Your task to perform on an android device: open app "YouTube Kids" Image 0: 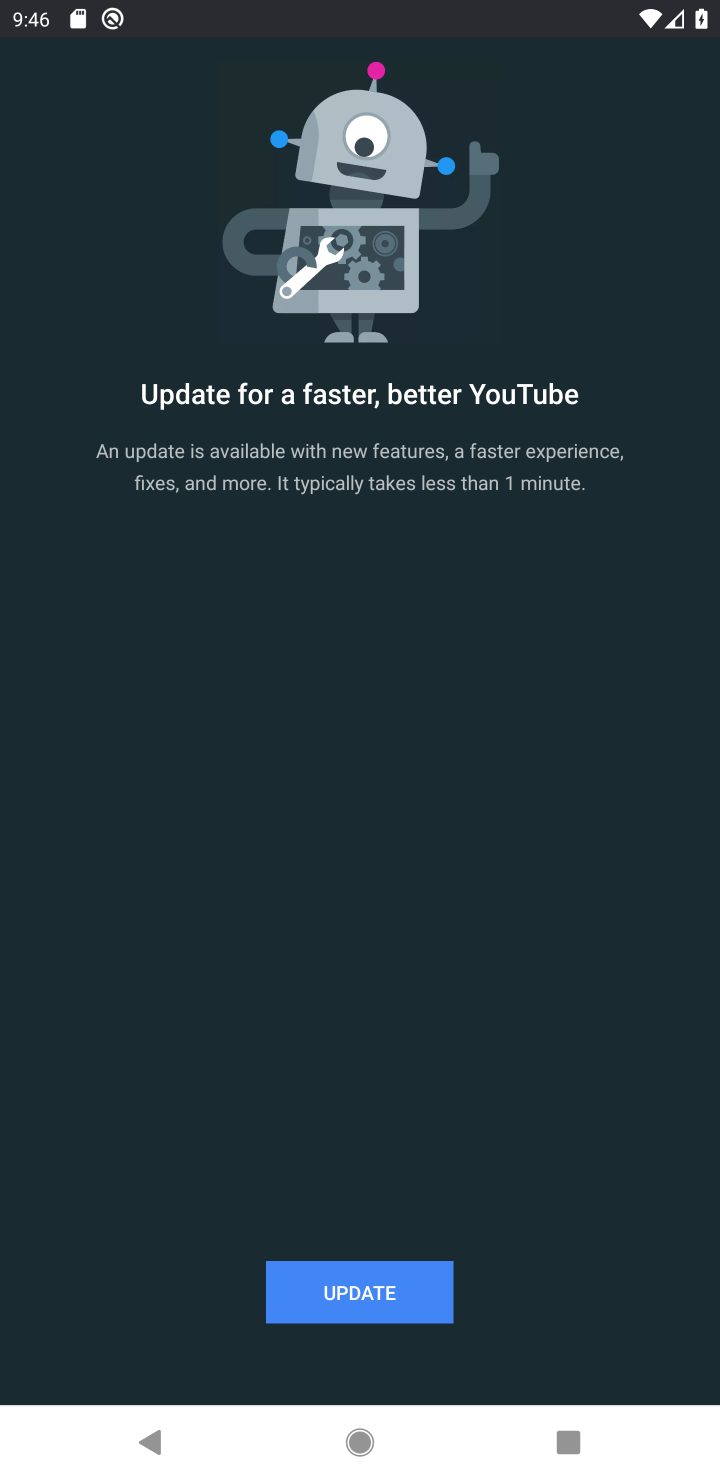
Step 0: press back button
Your task to perform on an android device: open app "YouTube Kids" Image 1: 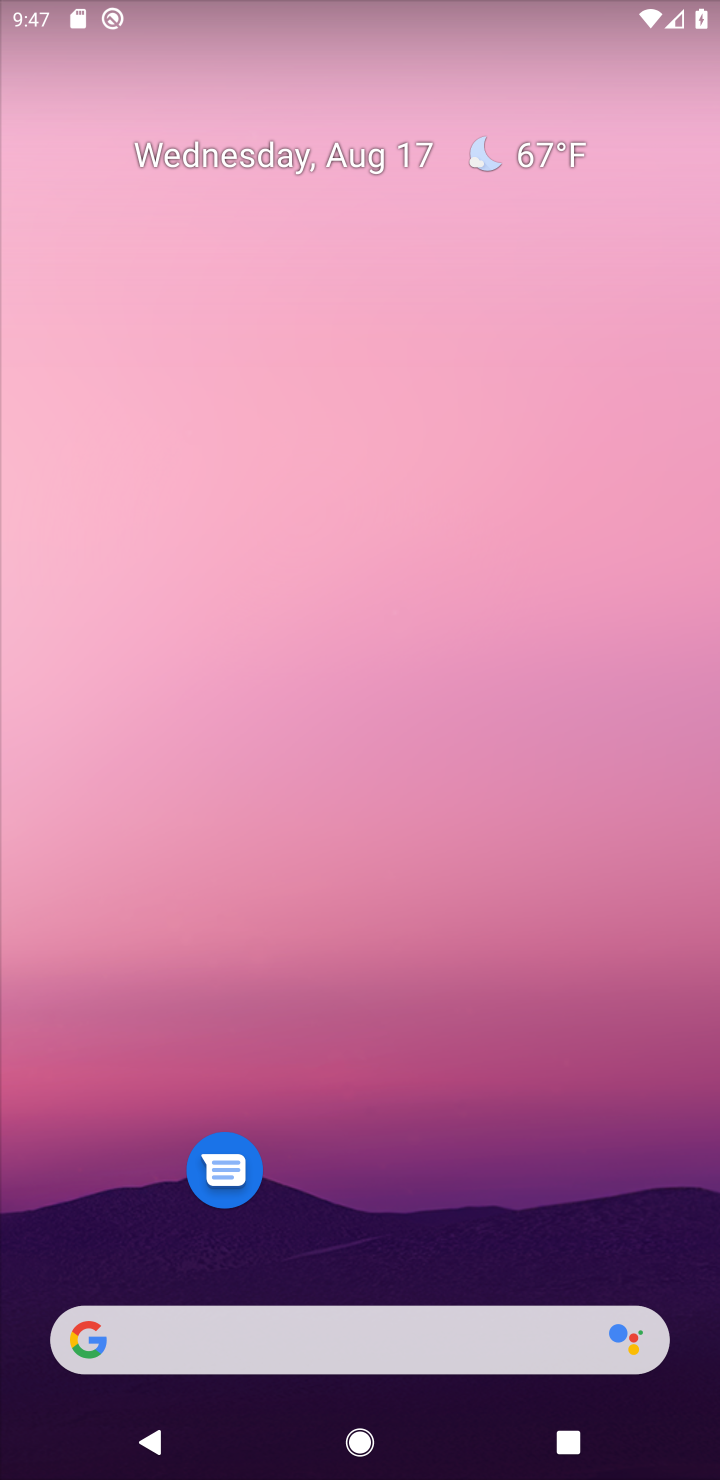
Step 1: drag from (395, 1282) to (425, 0)
Your task to perform on an android device: open app "YouTube Kids" Image 2: 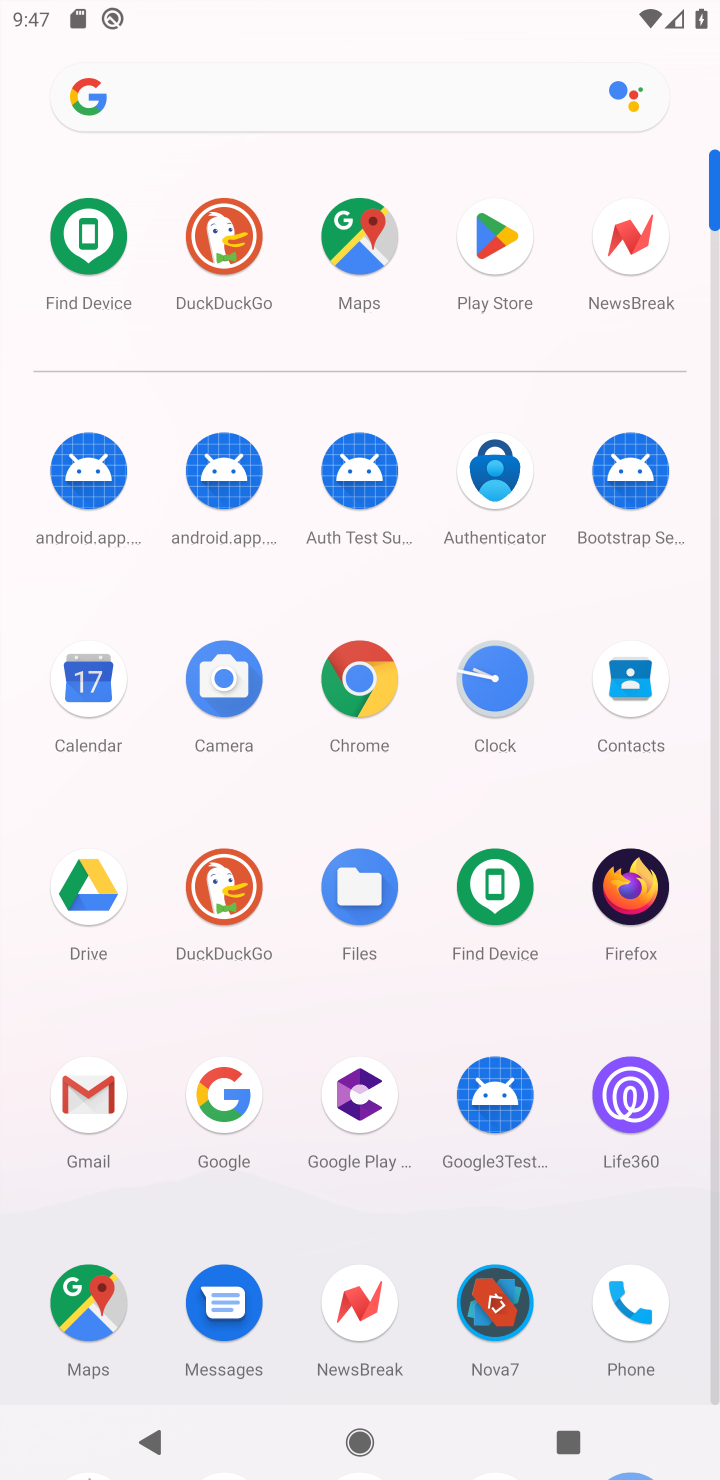
Step 2: click (478, 259)
Your task to perform on an android device: open app "YouTube Kids" Image 3: 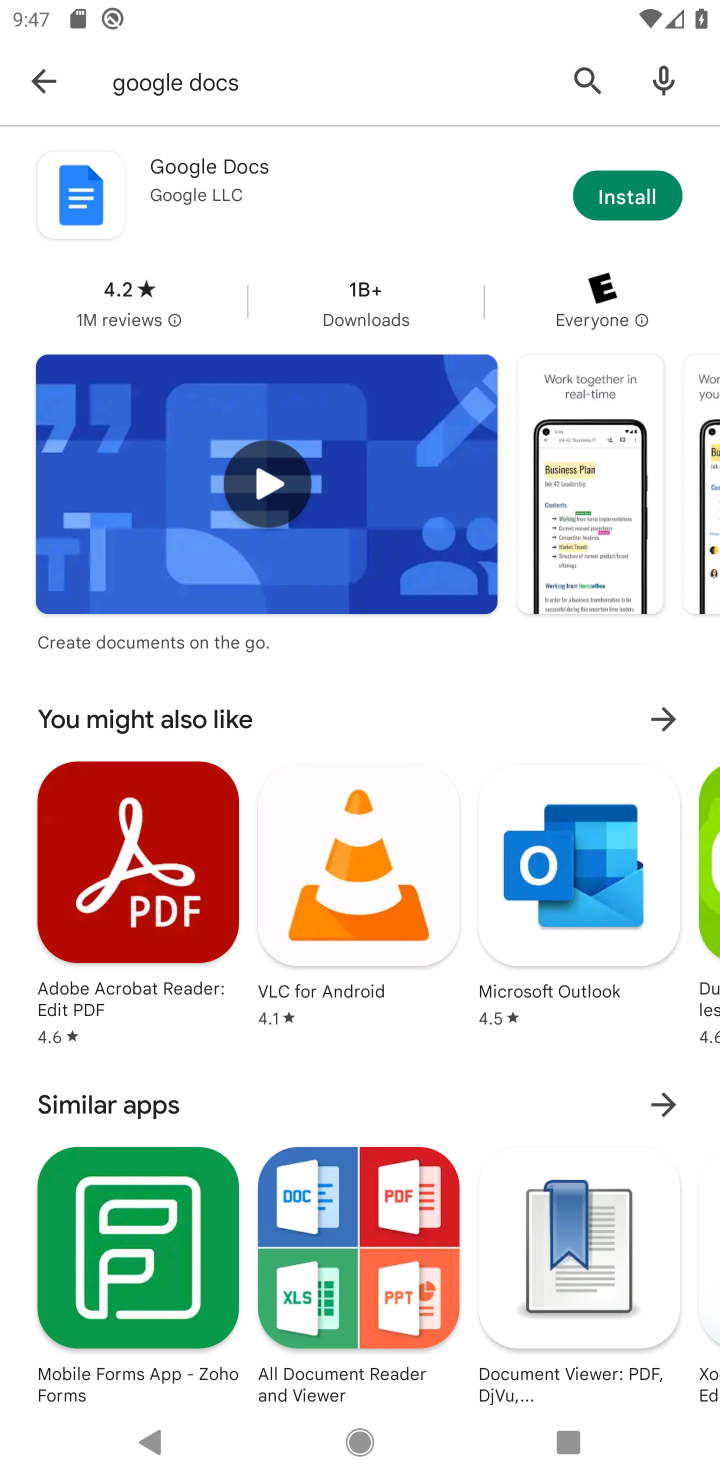
Step 3: click (33, 89)
Your task to perform on an android device: open app "YouTube Kids" Image 4: 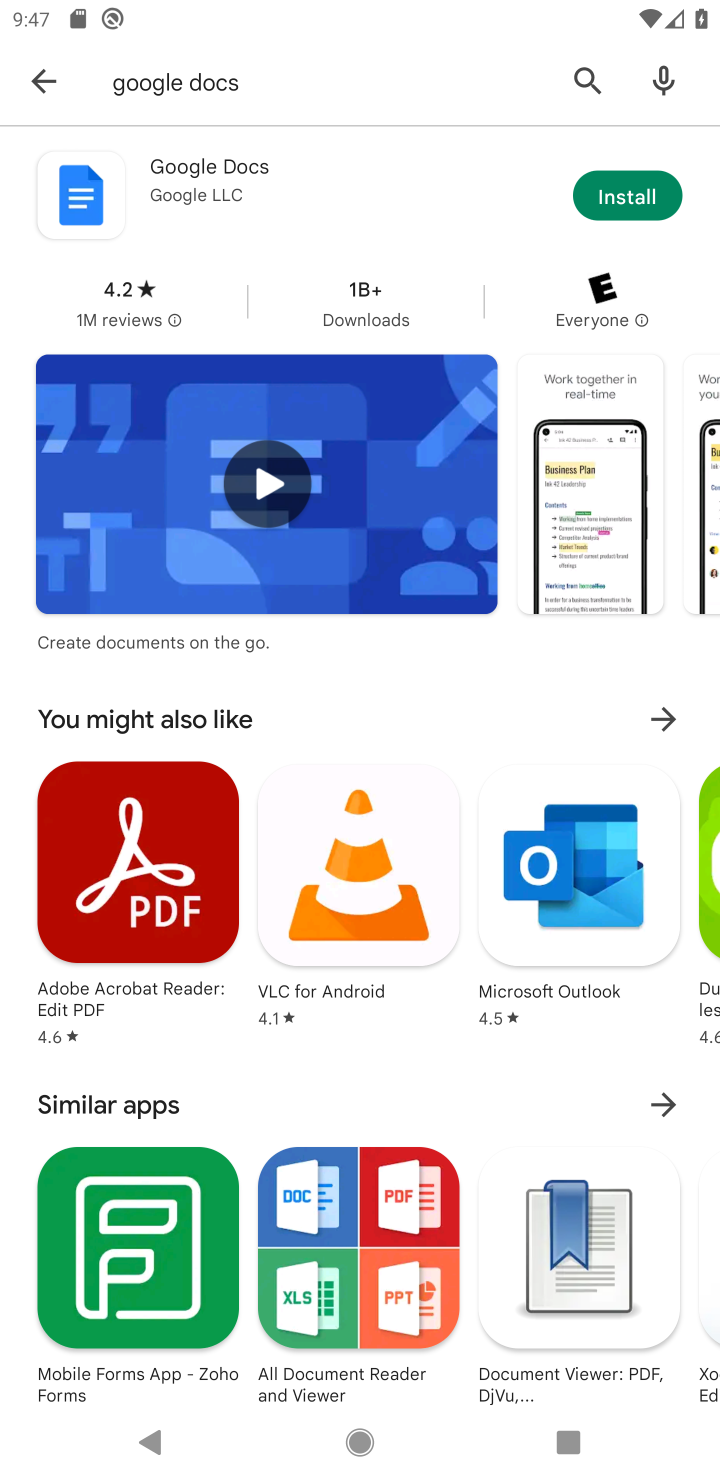
Step 4: click (57, 66)
Your task to perform on an android device: open app "YouTube Kids" Image 5: 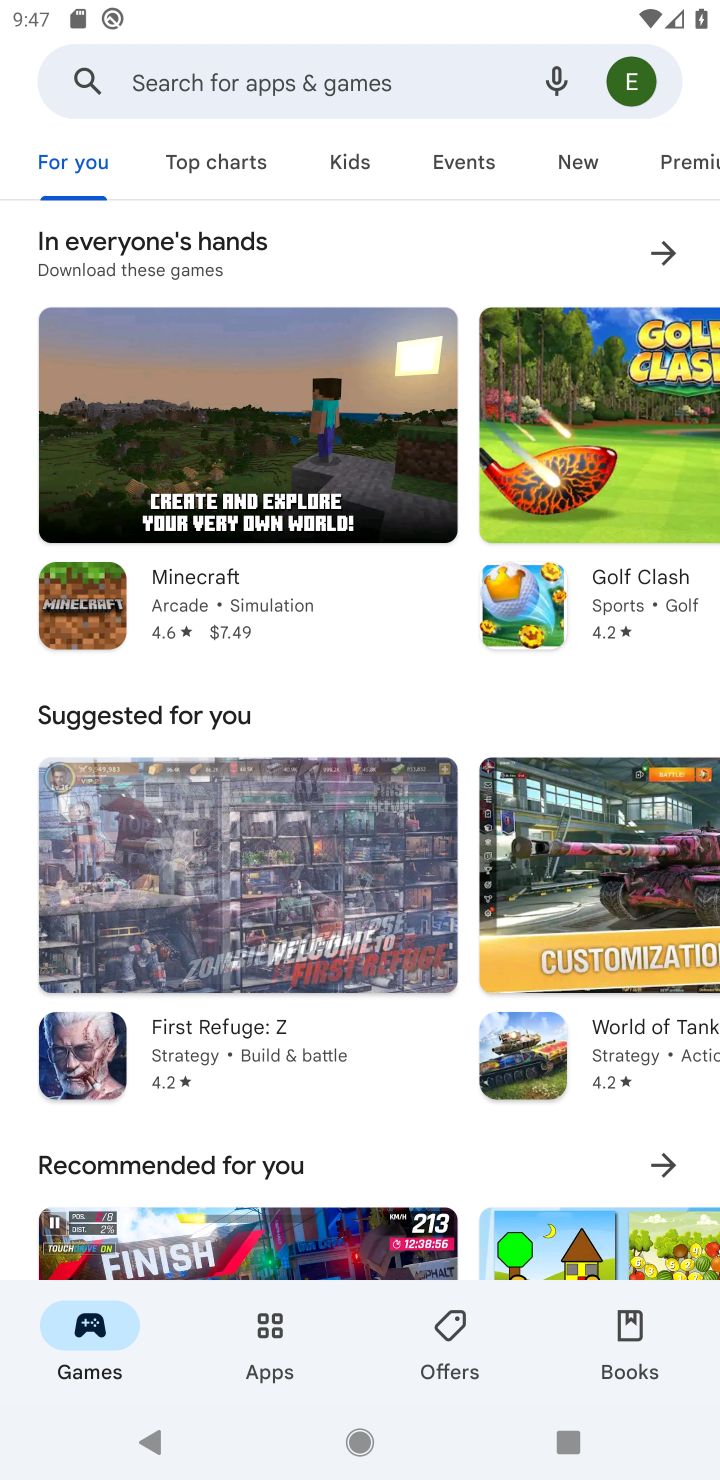
Step 5: click (168, 96)
Your task to perform on an android device: open app "YouTube Kids" Image 6: 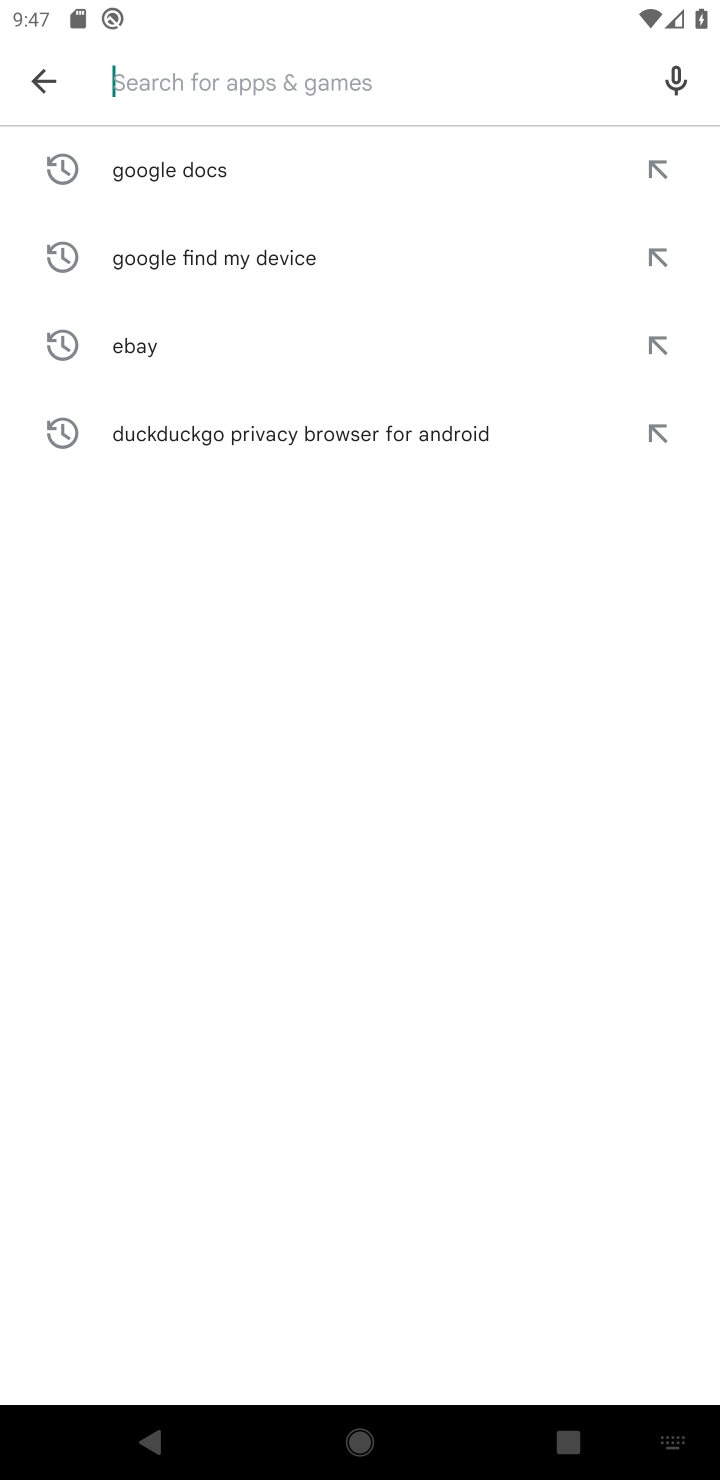
Step 6: type "YouTube Kids"
Your task to perform on an android device: open app "YouTube Kids" Image 7: 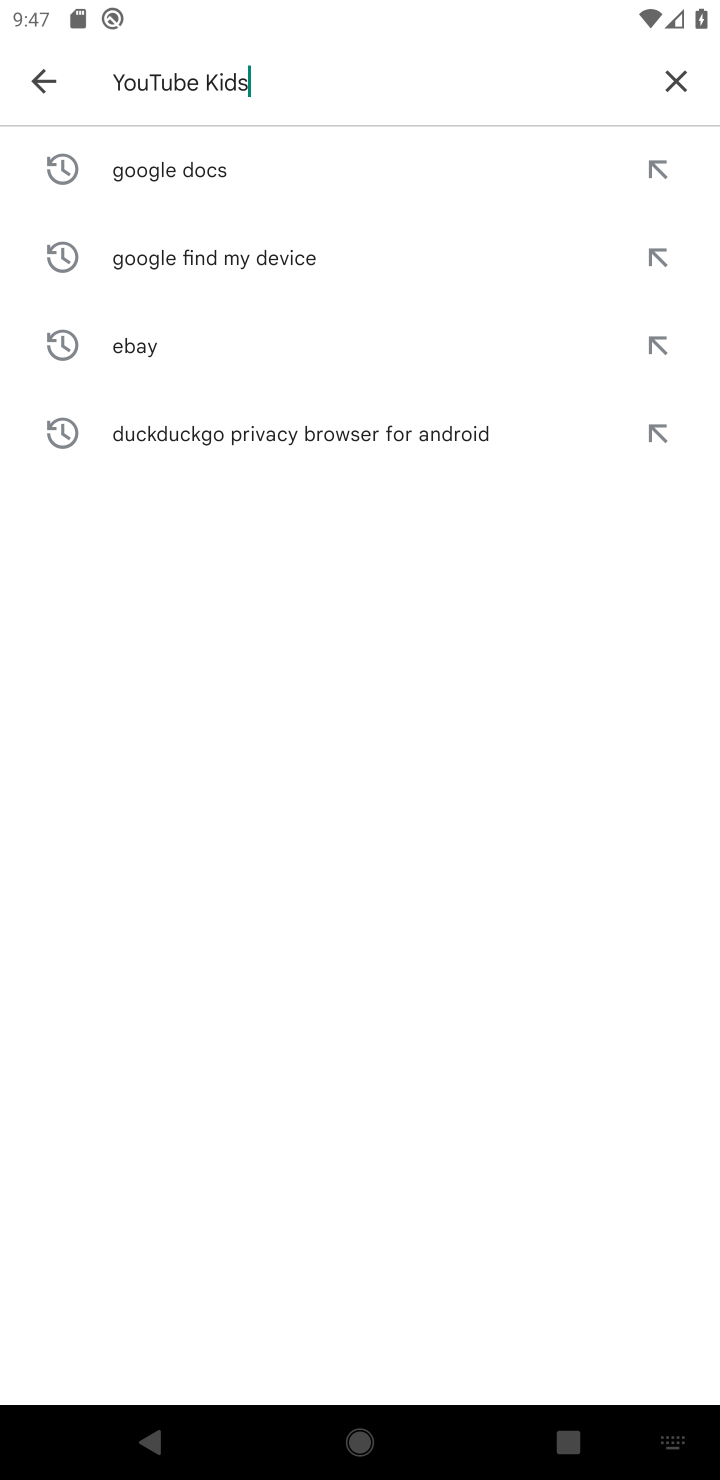
Step 7: type ""
Your task to perform on an android device: open app "YouTube Kids" Image 8: 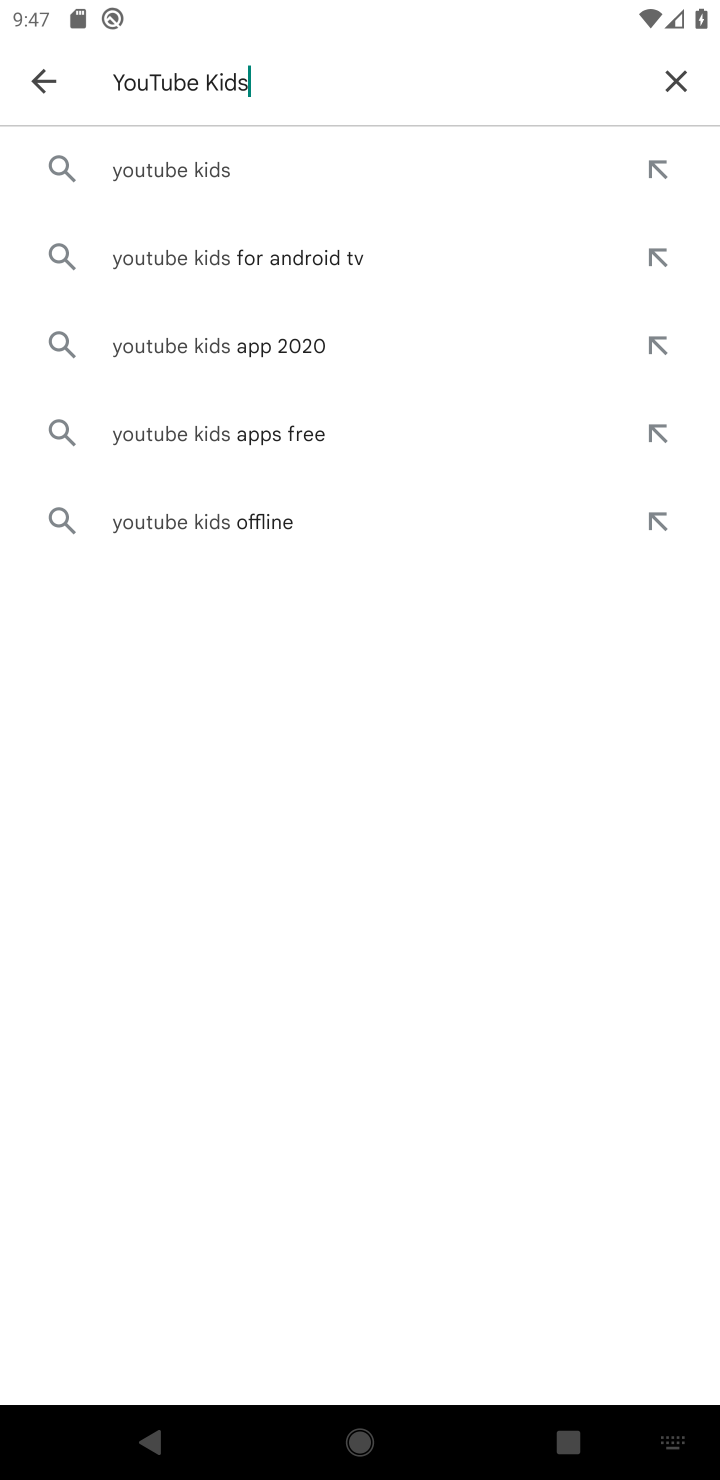
Step 8: click (241, 147)
Your task to perform on an android device: open app "YouTube Kids" Image 9: 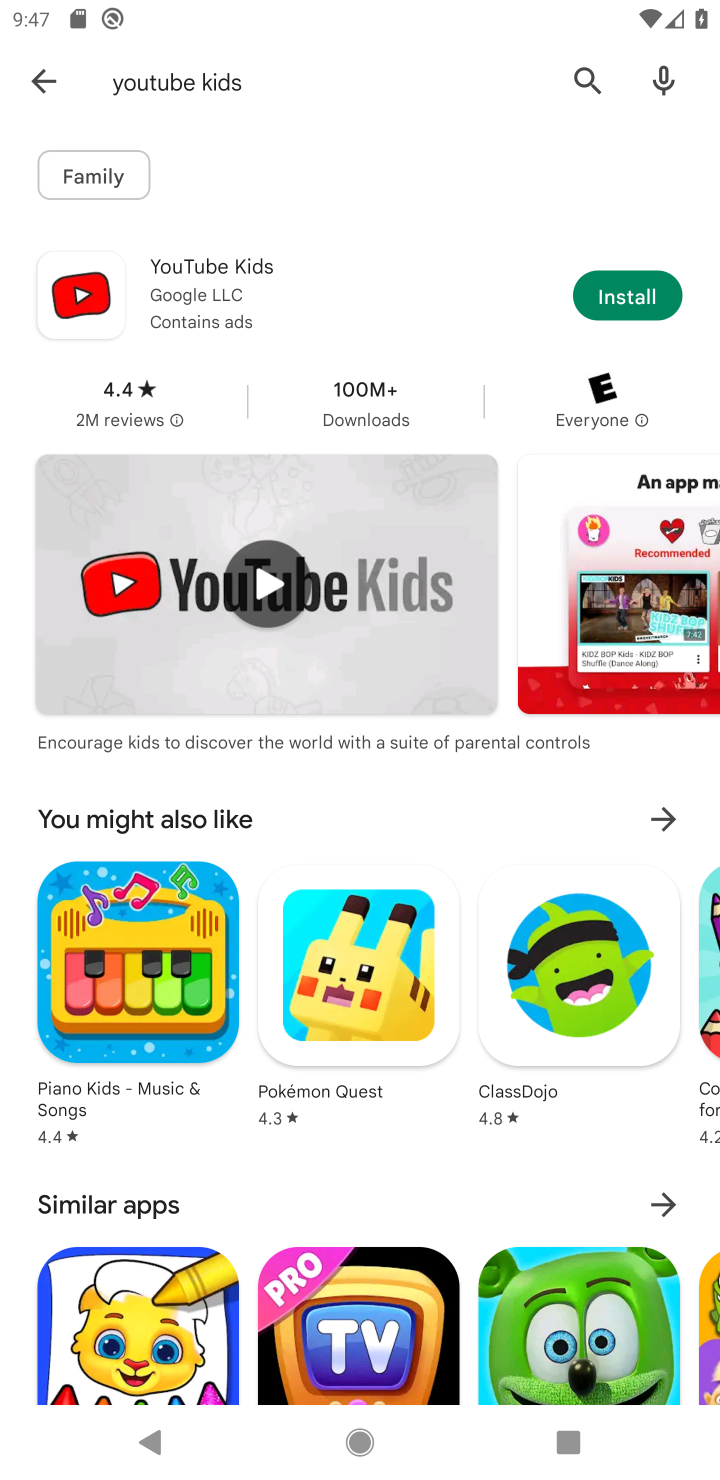
Step 9: task complete